Your task to perform on an android device: toggle sleep mode Image 0: 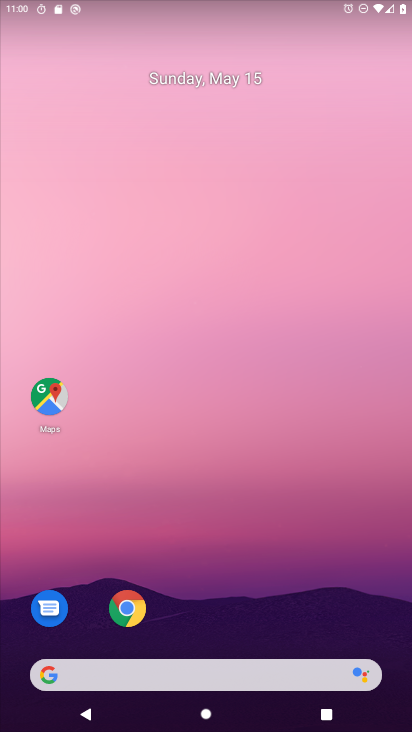
Step 0: drag from (320, 599) to (322, 130)
Your task to perform on an android device: toggle sleep mode Image 1: 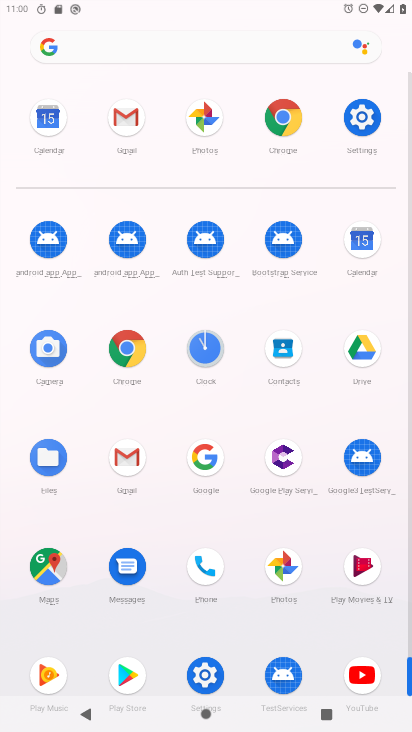
Step 1: click (207, 664)
Your task to perform on an android device: toggle sleep mode Image 2: 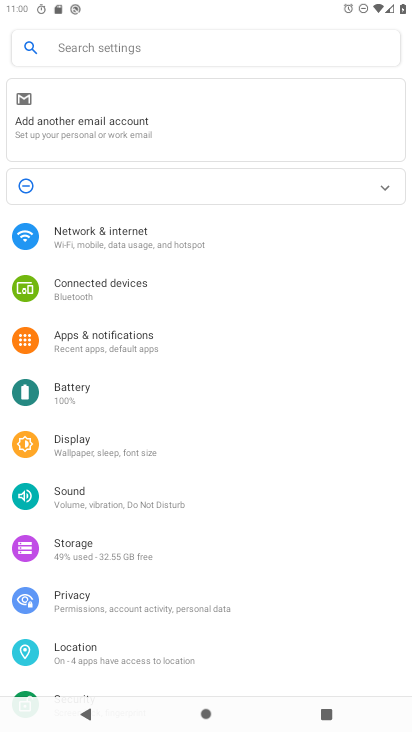
Step 2: click (200, 52)
Your task to perform on an android device: toggle sleep mode Image 3: 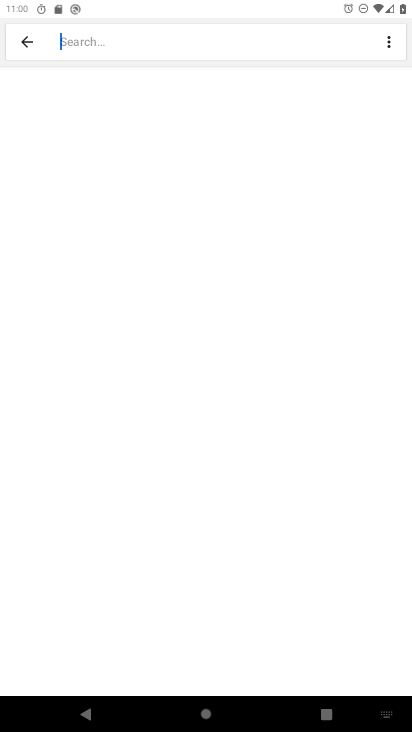
Step 3: type "sleep mode"
Your task to perform on an android device: toggle sleep mode Image 4: 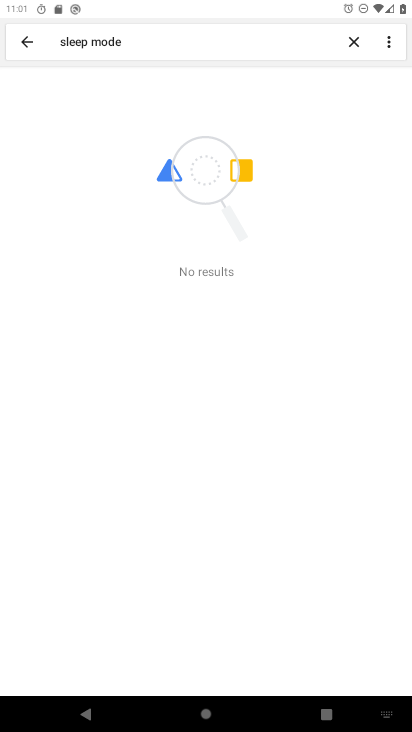
Step 4: task complete